Your task to perform on an android device: Go to Wikipedia Image 0: 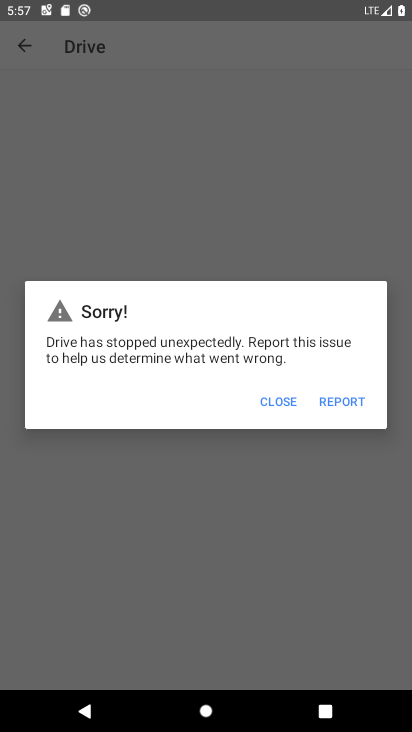
Step 0: press home button
Your task to perform on an android device: Go to Wikipedia Image 1: 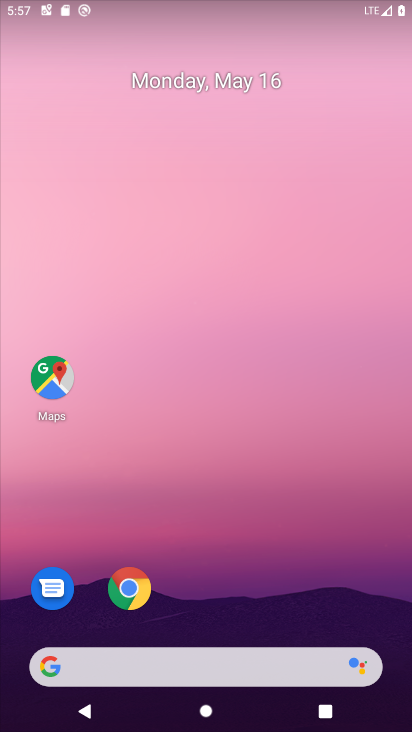
Step 1: click (137, 581)
Your task to perform on an android device: Go to Wikipedia Image 2: 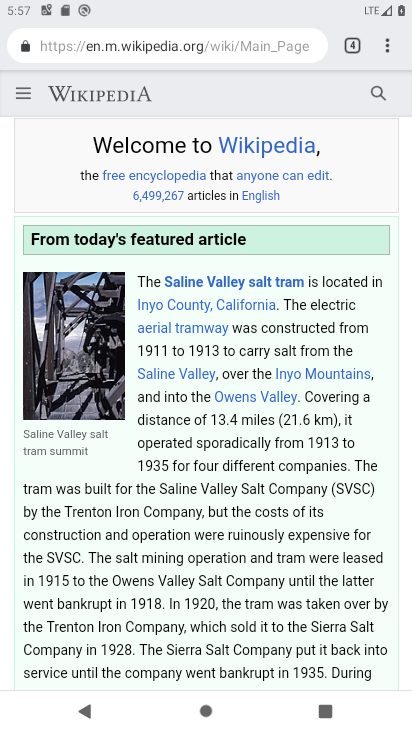
Step 2: task complete